Your task to perform on an android device: toggle sleep mode Image 0: 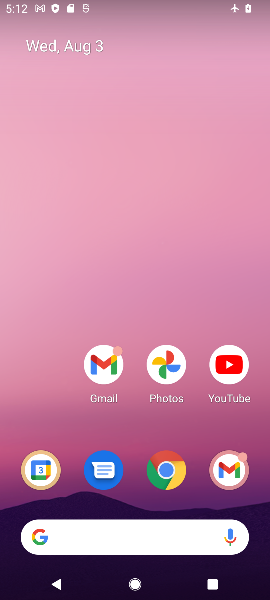
Step 0: drag from (59, 416) to (92, 86)
Your task to perform on an android device: toggle sleep mode Image 1: 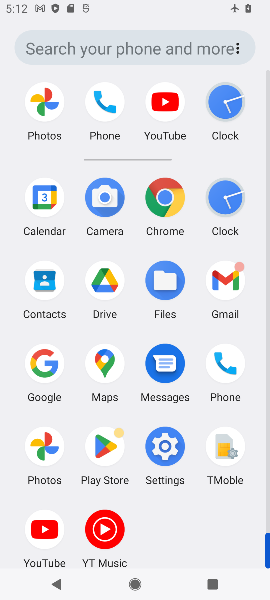
Step 1: click (169, 445)
Your task to perform on an android device: toggle sleep mode Image 2: 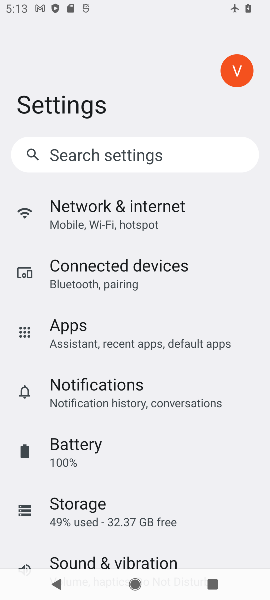
Step 2: drag from (180, 476) to (183, 90)
Your task to perform on an android device: toggle sleep mode Image 3: 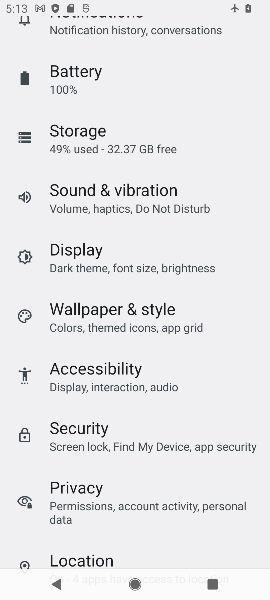
Step 3: click (141, 260)
Your task to perform on an android device: toggle sleep mode Image 4: 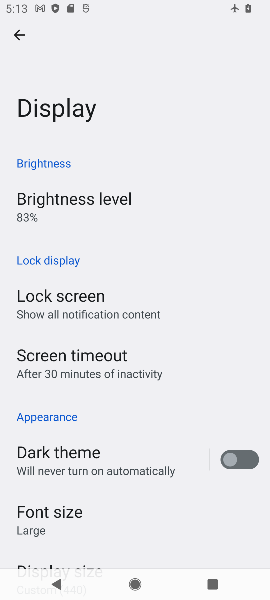
Step 4: drag from (224, 409) to (211, 95)
Your task to perform on an android device: toggle sleep mode Image 5: 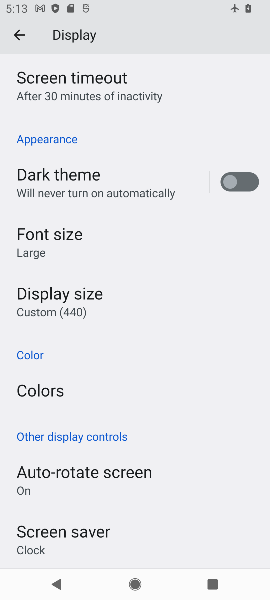
Step 5: drag from (165, 251) to (191, 472)
Your task to perform on an android device: toggle sleep mode Image 6: 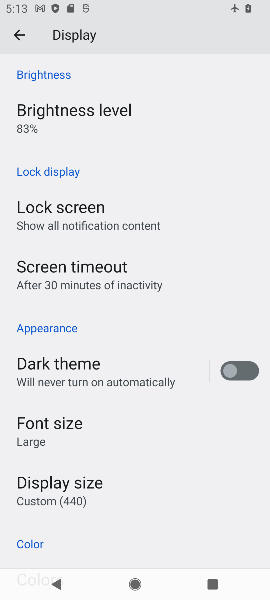
Step 6: click (107, 282)
Your task to perform on an android device: toggle sleep mode Image 7: 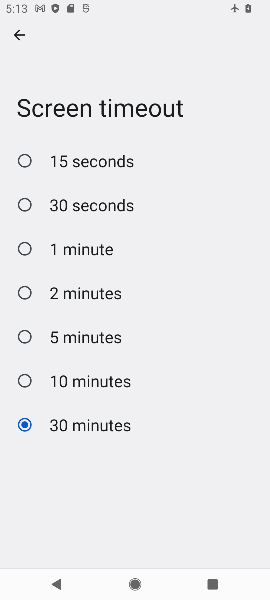
Step 7: click (82, 387)
Your task to perform on an android device: toggle sleep mode Image 8: 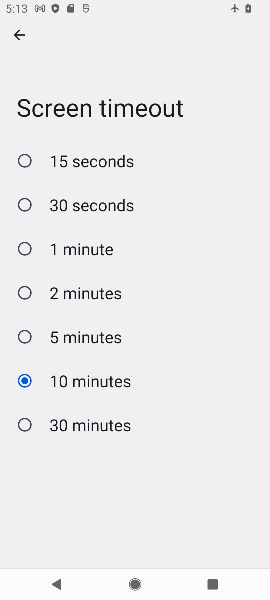
Step 8: task complete